Your task to perform on an android device: show emergency info Image 0: 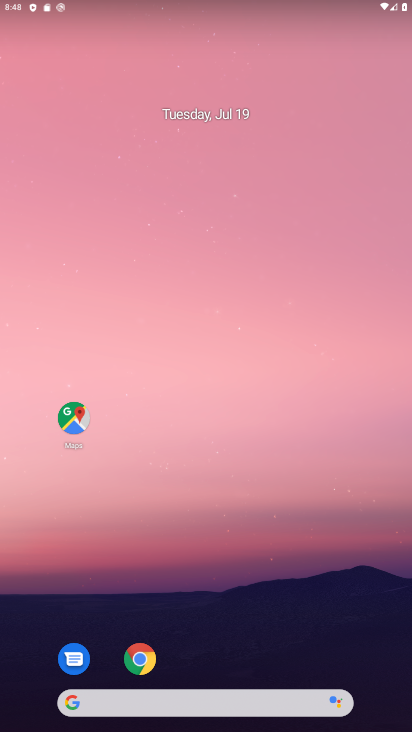
Step 0: drag from (176, 675) to (247, 307)
Your task to perform on an android device: show emergency info Image 1: 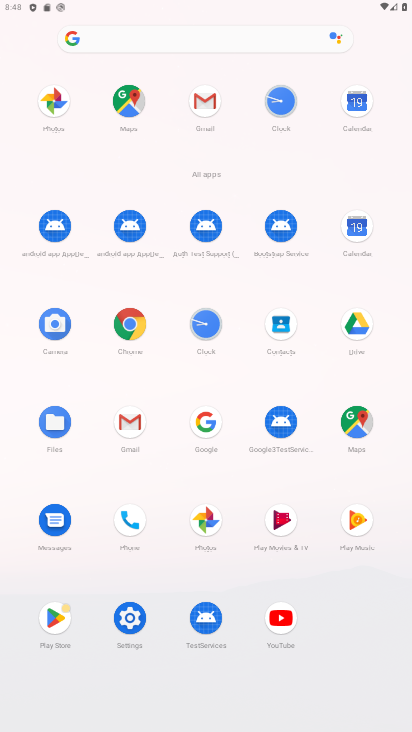
Step 1: click (133, 624)
Your task to perform on an android device: show emergency info Image 2: 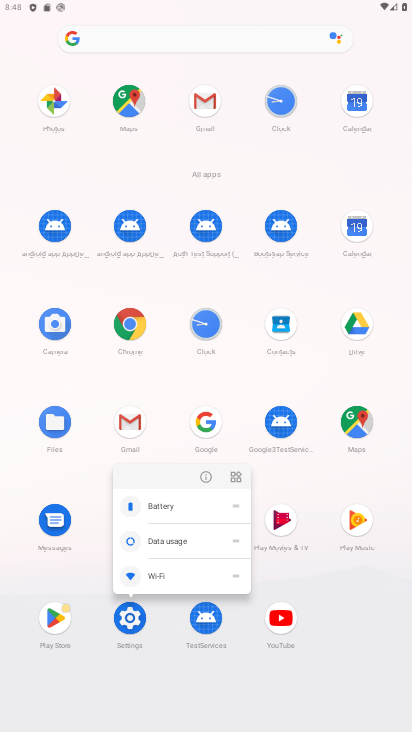
Step 2: click (204, 468)
Your task to perform on an android device: show emergency info Image 3: 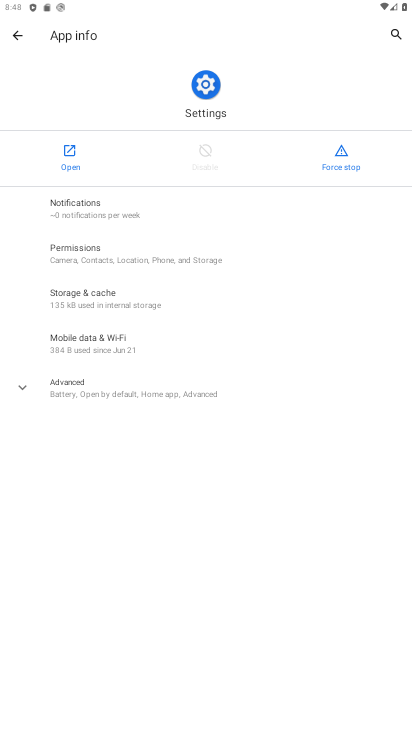
Step 3: click (62, 155)
Your task to perform on an android device: show emergency info Image 4: 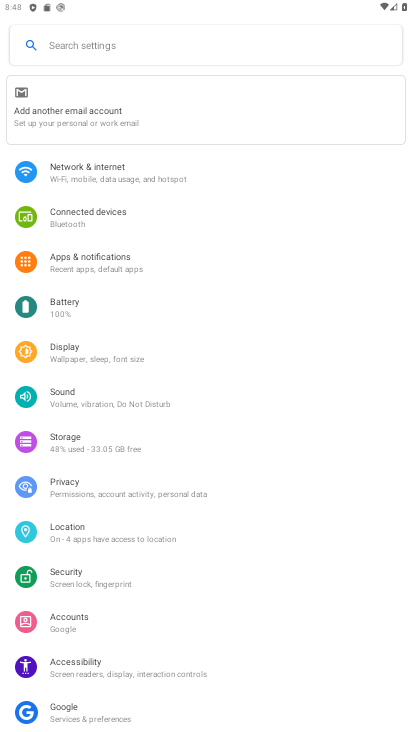
Step 4: drag from (127, 662) to (249, 39)
Your task to perform on an android device: show emergency info Image 5: 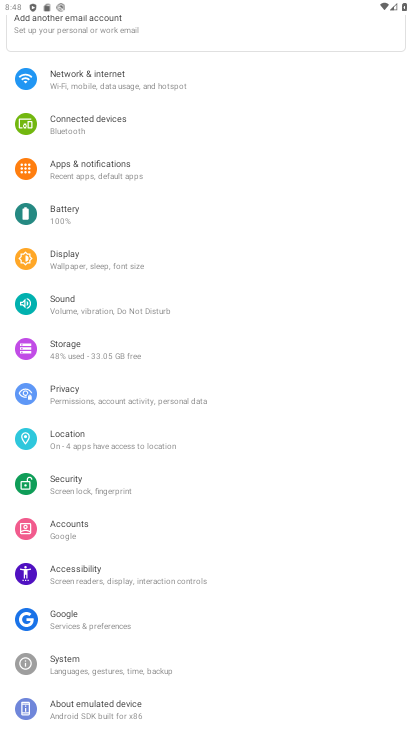
Step 5: click (122, 706)
Your task to perform on an android device: show emergency info Image 6: 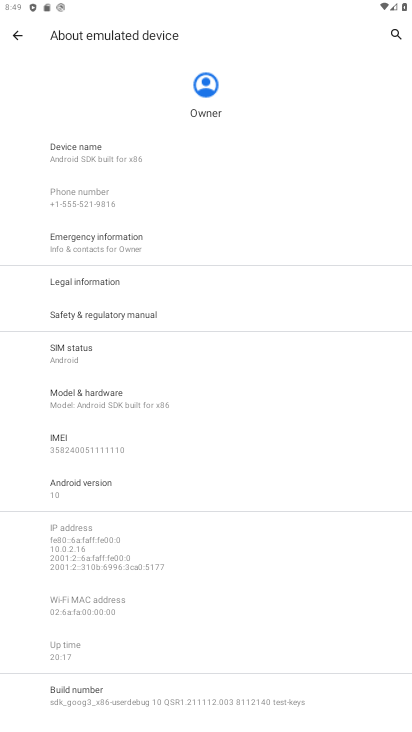
Step 6: click (133, 243)
Your task to perform on an android device: show emergency info Image 7: 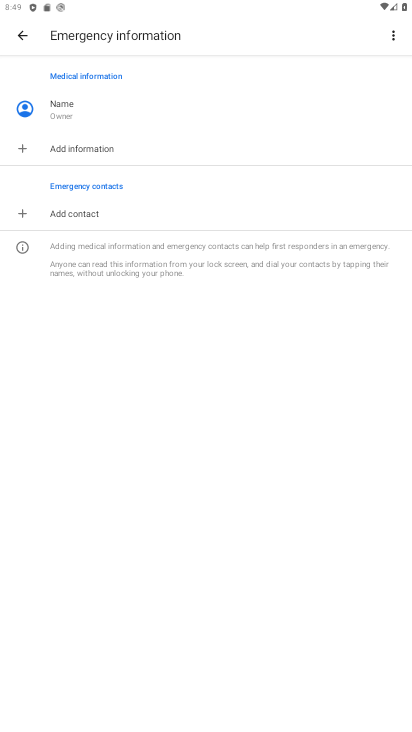
Step 7: task complete